Your task to perform on an android device: Turn off the flashlight Image 0: 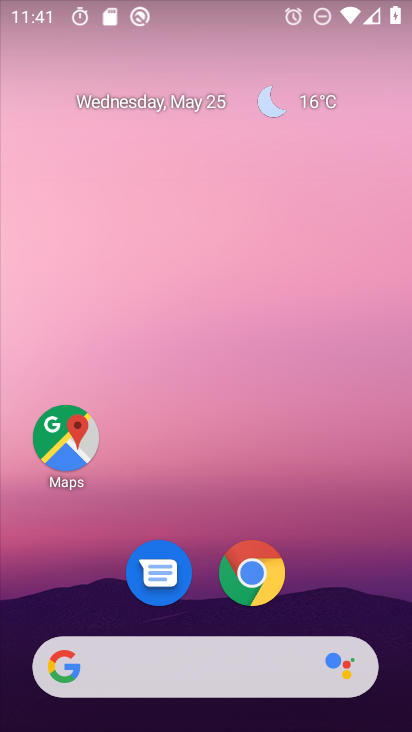
Step 0: drag from (209, 4) to (223, 520)
Your task to perform on an android device: Turn off the flashlight Image 1: 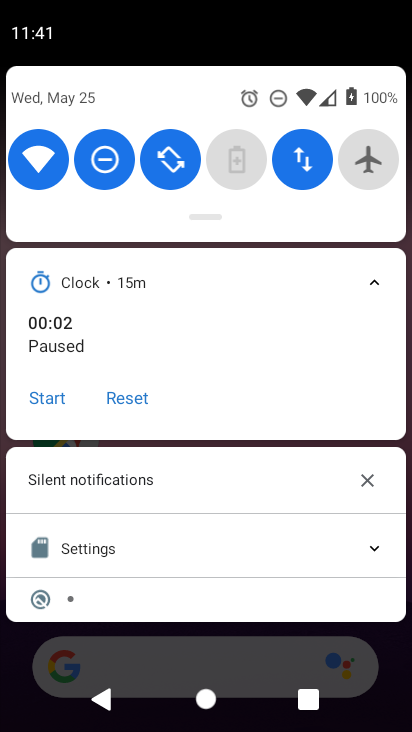
Step 1: task complete